Your task to perform on an android device: clear history in the chrome app Image 0: 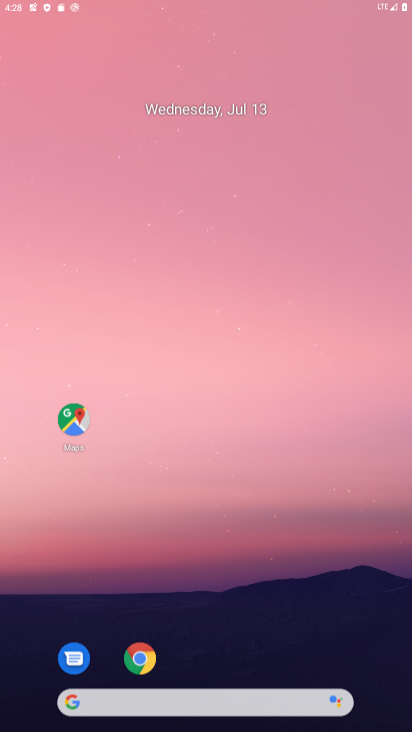
Step 0: press home button
Your task to perform on an android device: clear history in the chrome app Image 1: 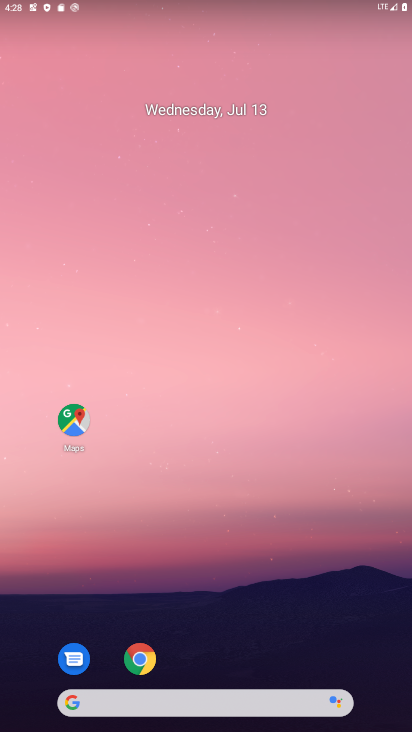
Step 1: click (135, 653)
Your task to perform on an android device: clear history in the chrome app Image 2: 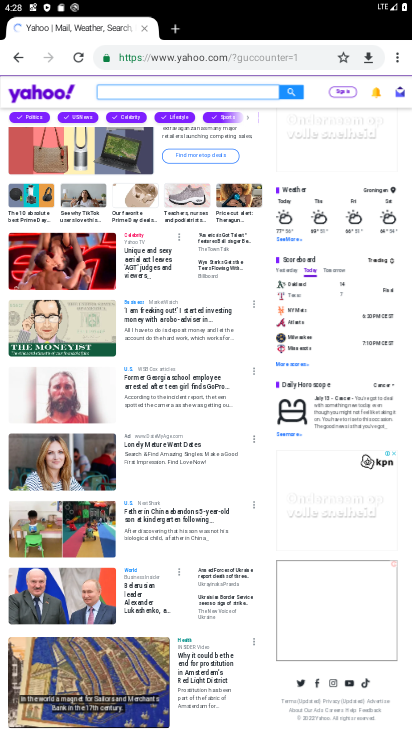
Step 2: click (174, 25)
Your task to perform on an android device: clear history in the chrome app Image 3: 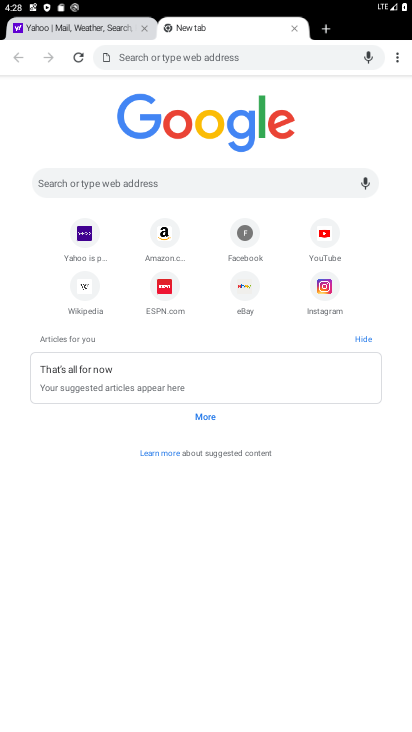
Step 3: click (395, 56)
Your task to perform on an android device: clear history in the chrome app Image 4: 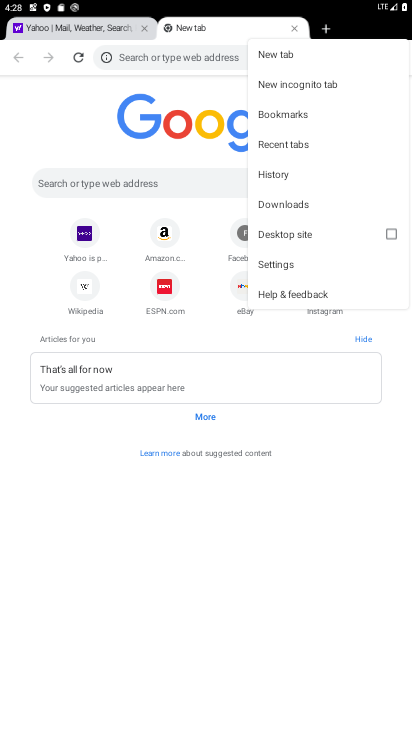
Step 4: click (294, 175)
Your task to perform on an android device: clear history in the chrome app Image 5: 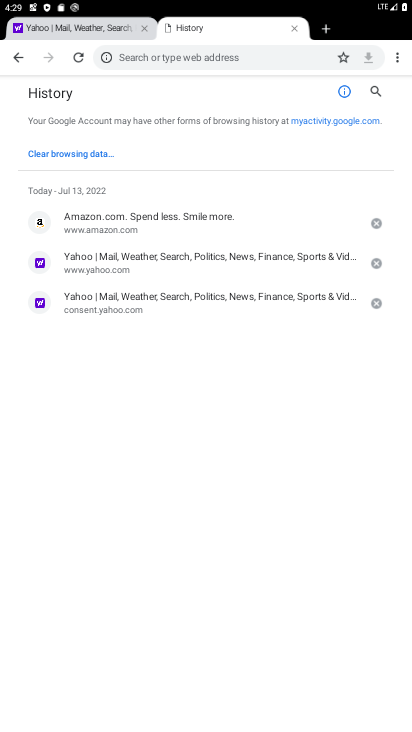
Step 5: click (80, 150)
Your task to perform on an android device: clear history in the chrome app Image 6: 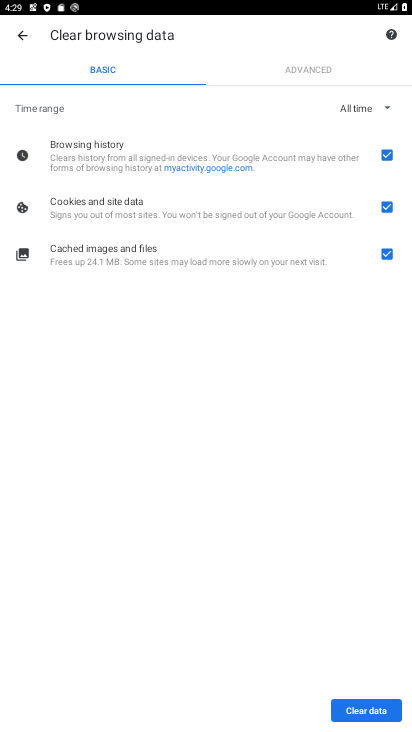
Step 6: click (364, 708)
Your task to perform on an android device: clear history in the chrome app Image 7: 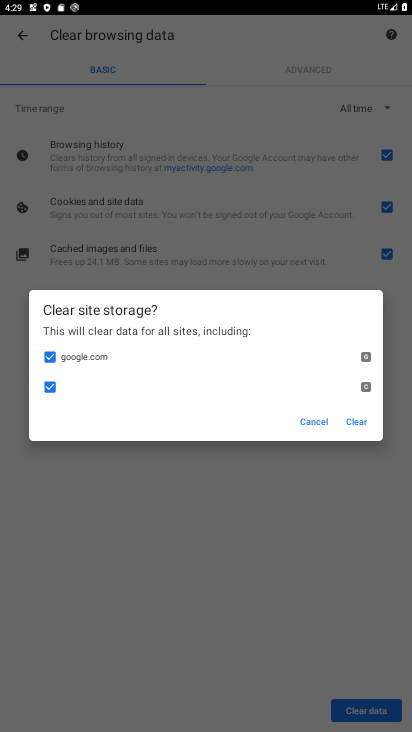
Step 7: click (347, 418)
Your task to perform on an android device: clear history in the chrome app Image 8: 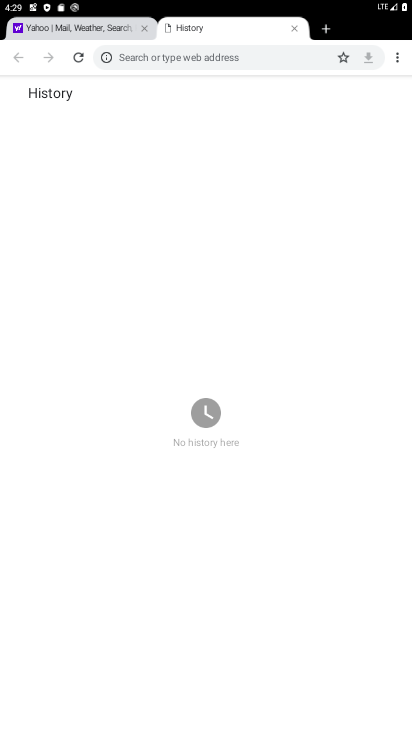
Step 8: task complete